Your task to perform on an android device: open wifi settings Image 0: 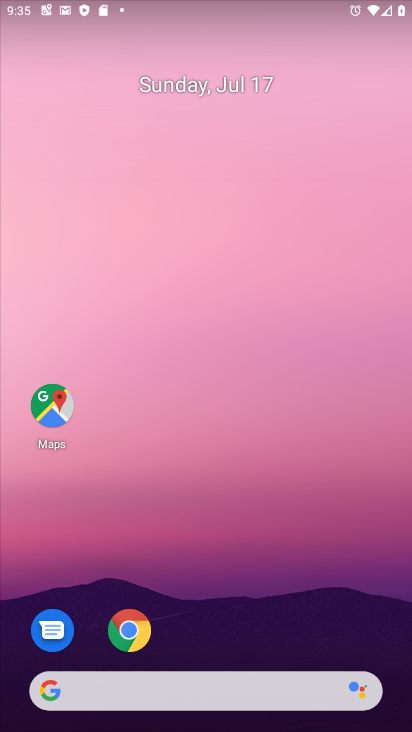
Step 0: drag from (345, 594) to (356, 50)
Your task to perform on an android device: open wifi settings Image 1: 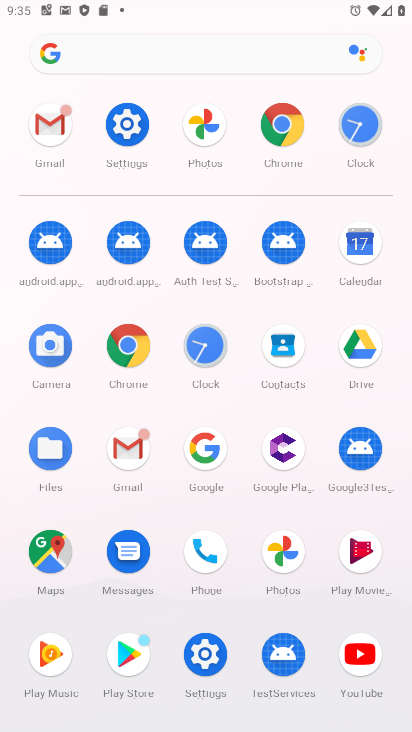
Step 1: click (126, 130)
Your task to perform on an android device: open wifi settings Image 2: 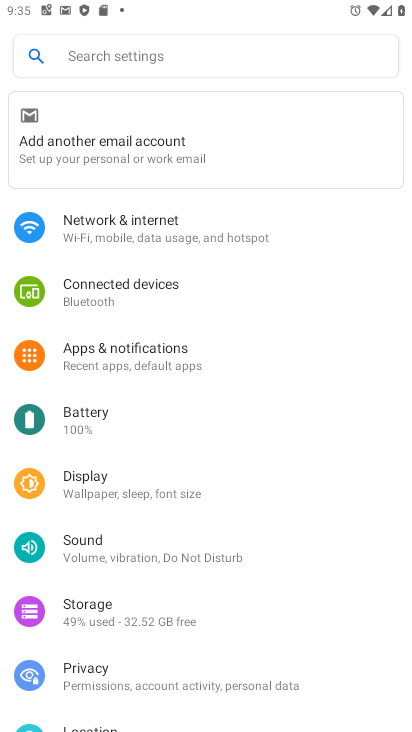
Step 2: drag from (341, 503) to (338, 377)
Your task to perform on an android device: open wifi settings Image 3: 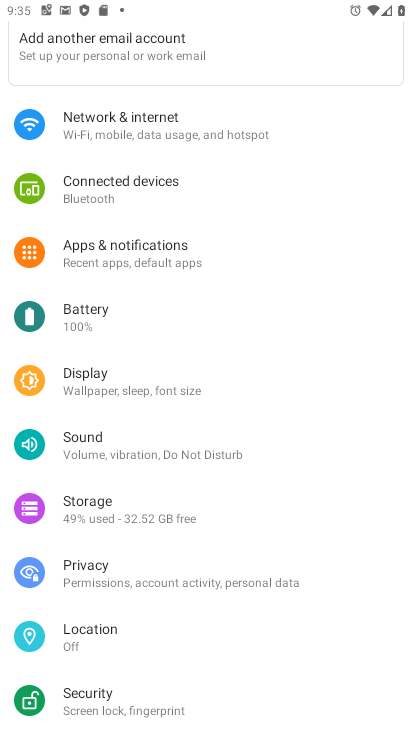
Step 3: drag from (349, 573) to (355, 434)
Your task to perform on an android device: open wifi settings Image 4: 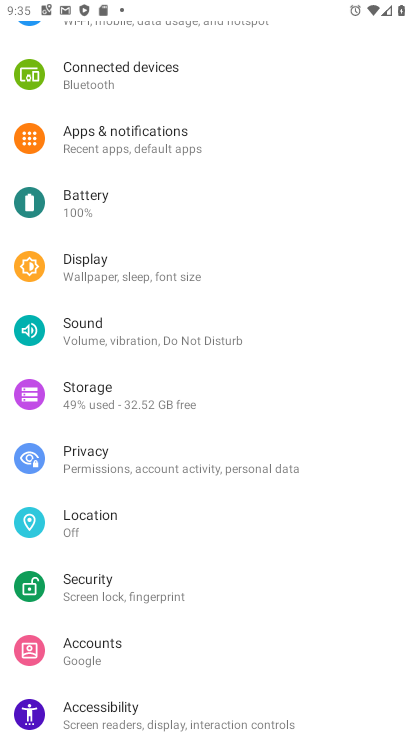
Step 4: drag from (333, 580) to (333, 452)
Your task to perform on an android device: open wifi settings Image 5: 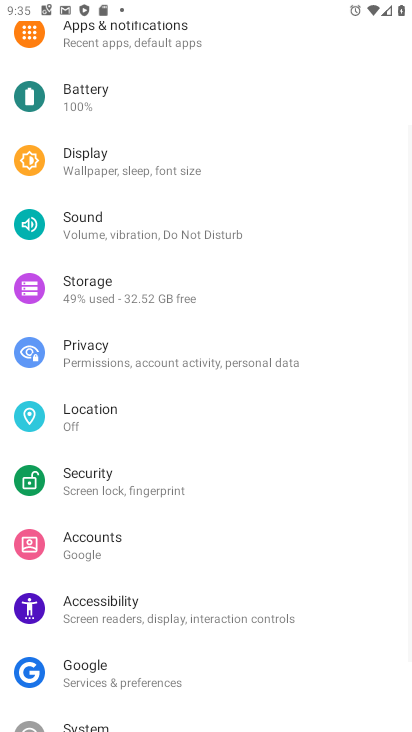
Step 5: drag from (340, 616) to (341, 488)
Your task to perform on an android device: open wifi settings Image 6: 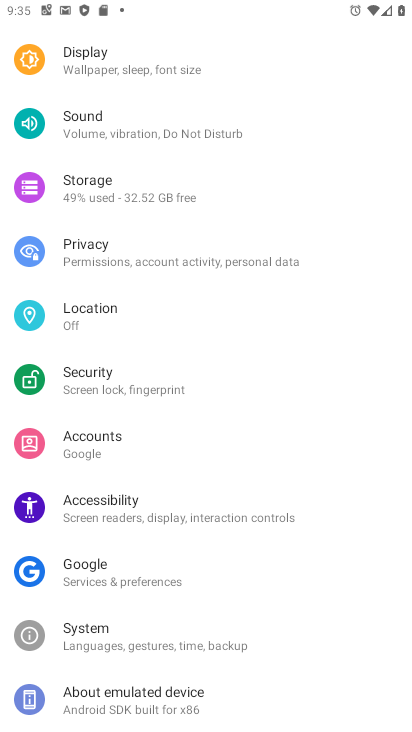
Step 6: drag from (348, 245) to (348, 407)
Your task to perform on an android device: open wifi settings Image 7: 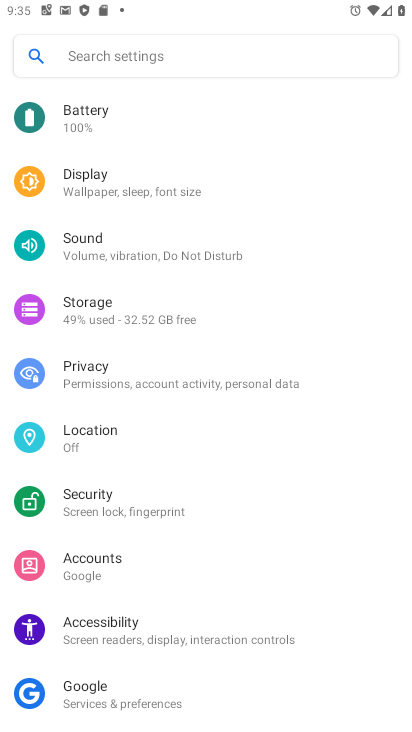
Step 7: drag from (335, 225) to (335, 371)
Your task to perform on an android device: open wifi settings Image 8: 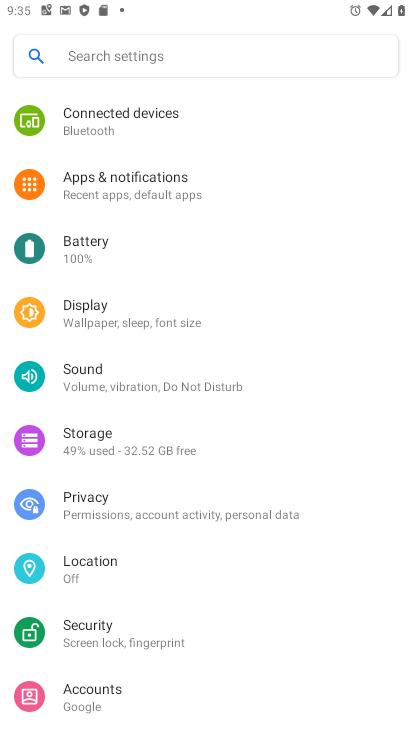
Step 8: drag from (320, 241) to (323, 449)
Your task to perform on an android device: open wifi settings Image 9: 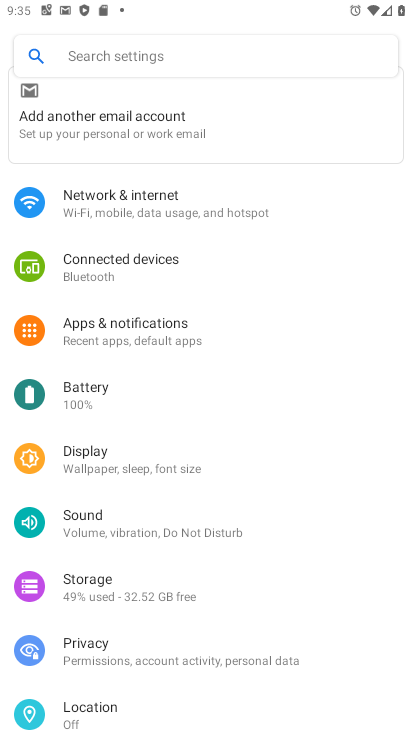
Step 9: drag from (329, 514) to (358, 328)
Your task to perform on an android device: open wifi settings Image 10: 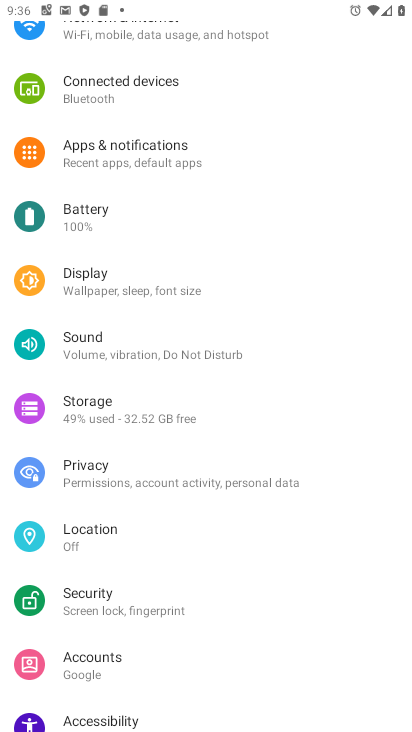
Step 10: drag from (306, 640) to (324, 393)
Your task to perform on an android device: open wifi settings Image 11: 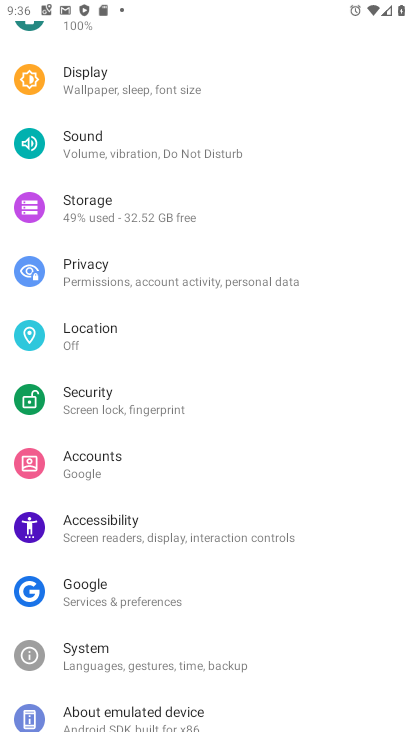
Step 11: drag from (353, 219) to (347, 422)
Your task to perform on an android device: open wifi settings Image 12: 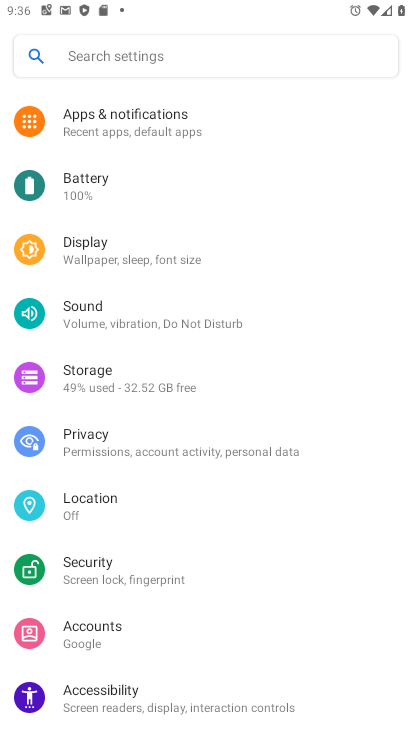
Step 12: drag from (352, 208) to (340, 376)
Your task to perform on an android device: open wifi settings Image 13: 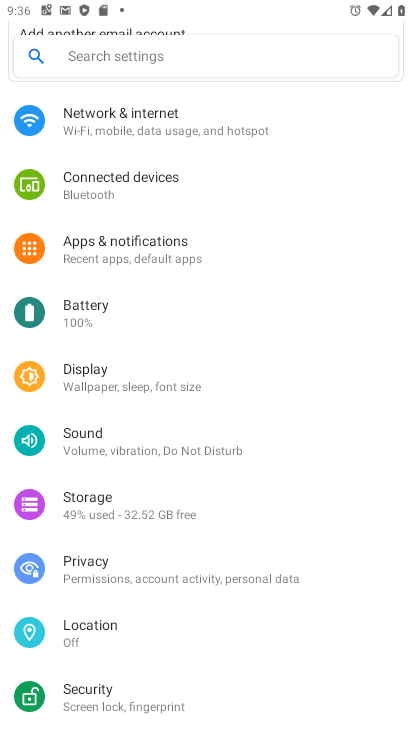
Step 13: drag from (309, 273) to (309, 469)
Your task to perform on an android device: open wifi settings Image 14: 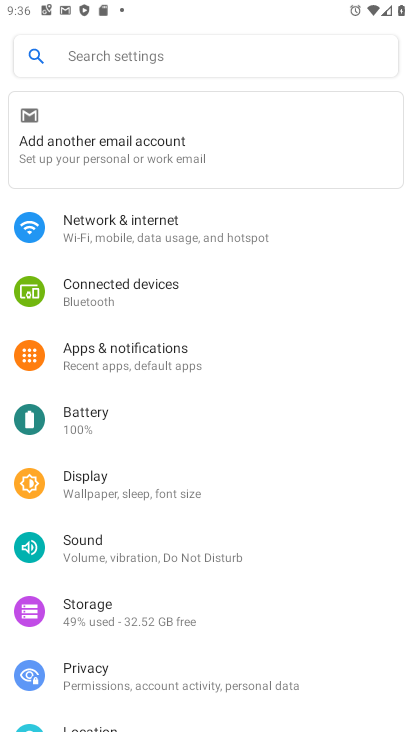
Step 14: click (266, 230)
Your task to perform on an android device: open wifi settings Image 15: 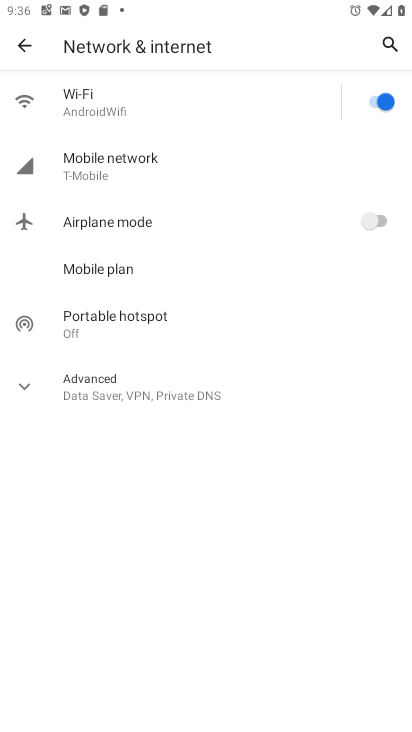
Step 15: click (138, 108)
Your task to perform on an android device: open wifi settings Image 16: 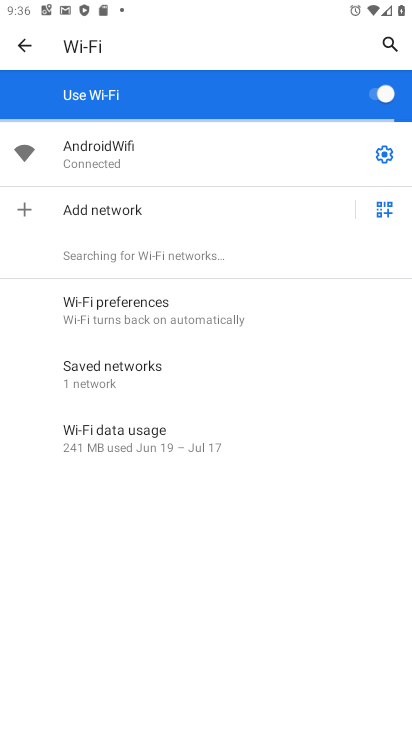
Step 16: task complete